Your task to perform on an android device: turn on data saver in the chrome app Image 0: 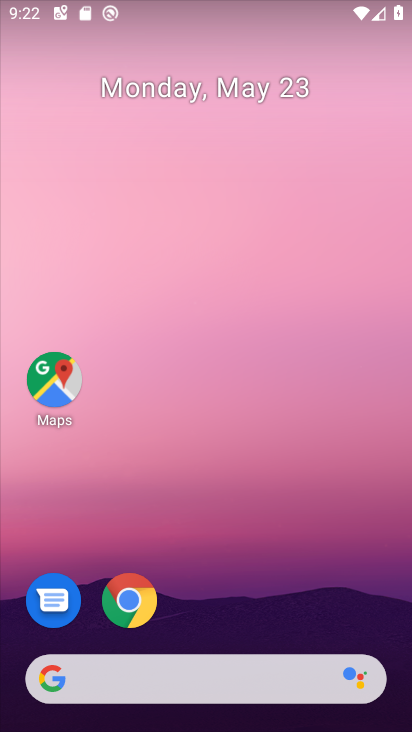
Step 0: click (131, 599)
Your task to perform on an android device: turn on data saver in the chrome app Image 1: 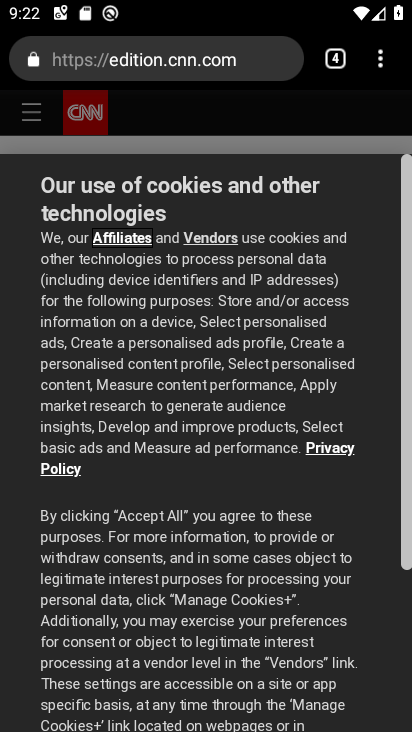
Step 1: click (379, 68)
Your task to perform on an android device: turn on data saver in the chrome app Image 2: 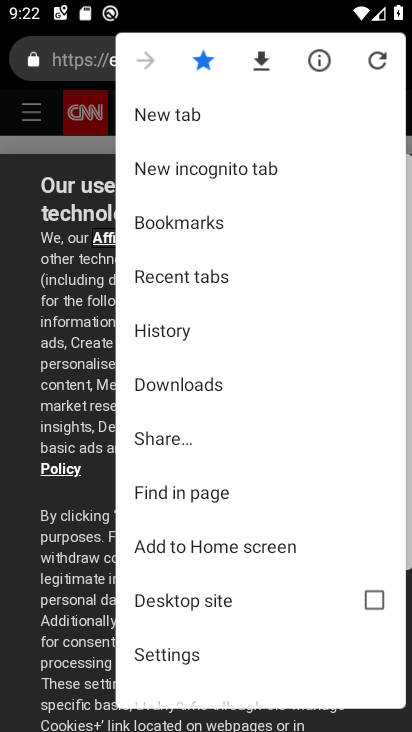
Step 2: click (169, 653)
Your task to perform on an android device: turn on data saver in the chrome app Image 3: 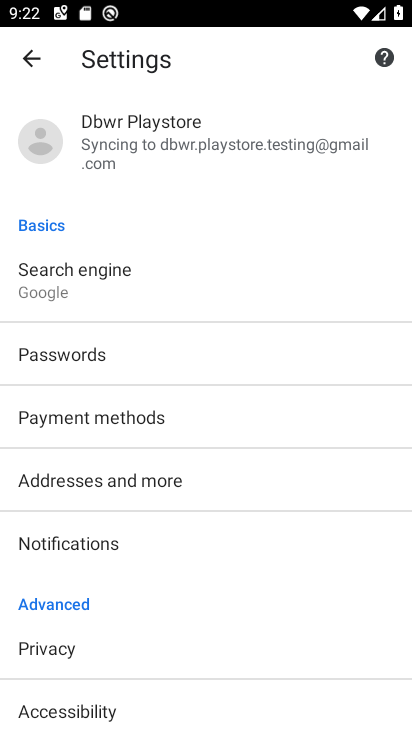
Step 3: drag from (109, 675) to (122, 331)
Your task to perform on an android device: turn on data saver in the chrome app Image 4: 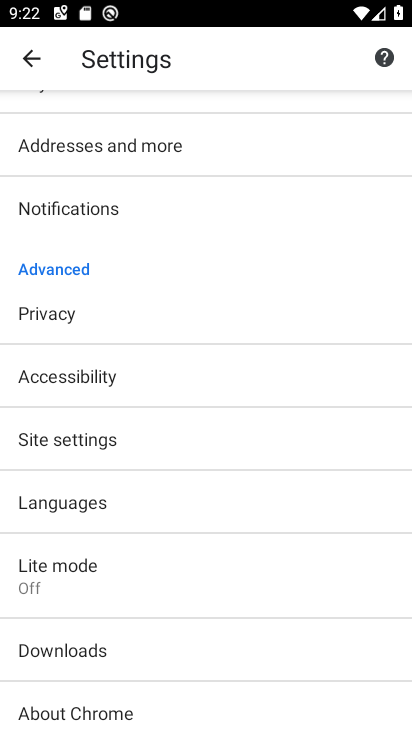
Step 4: click (71, 559)
Your task to perform on an android device: turn on data saver in the chrome app Image 5: 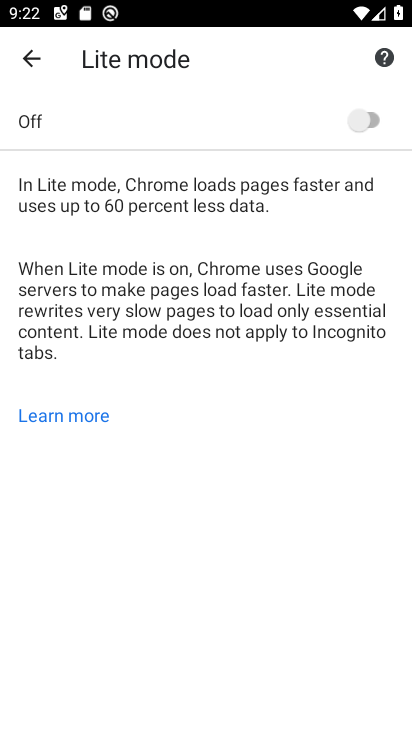
Step 5: click (377, 118)
Your task to perform on an android device: turn on data saver in the chrome app Image 6: 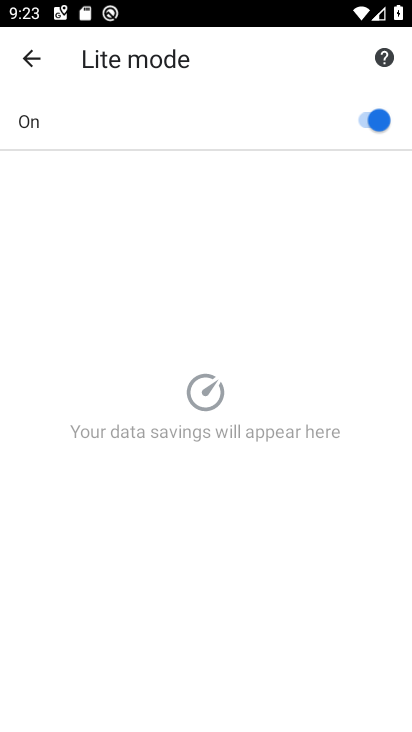
Step 6: task complete